Your task to perform on an android device: Go to notification settings Image 0: 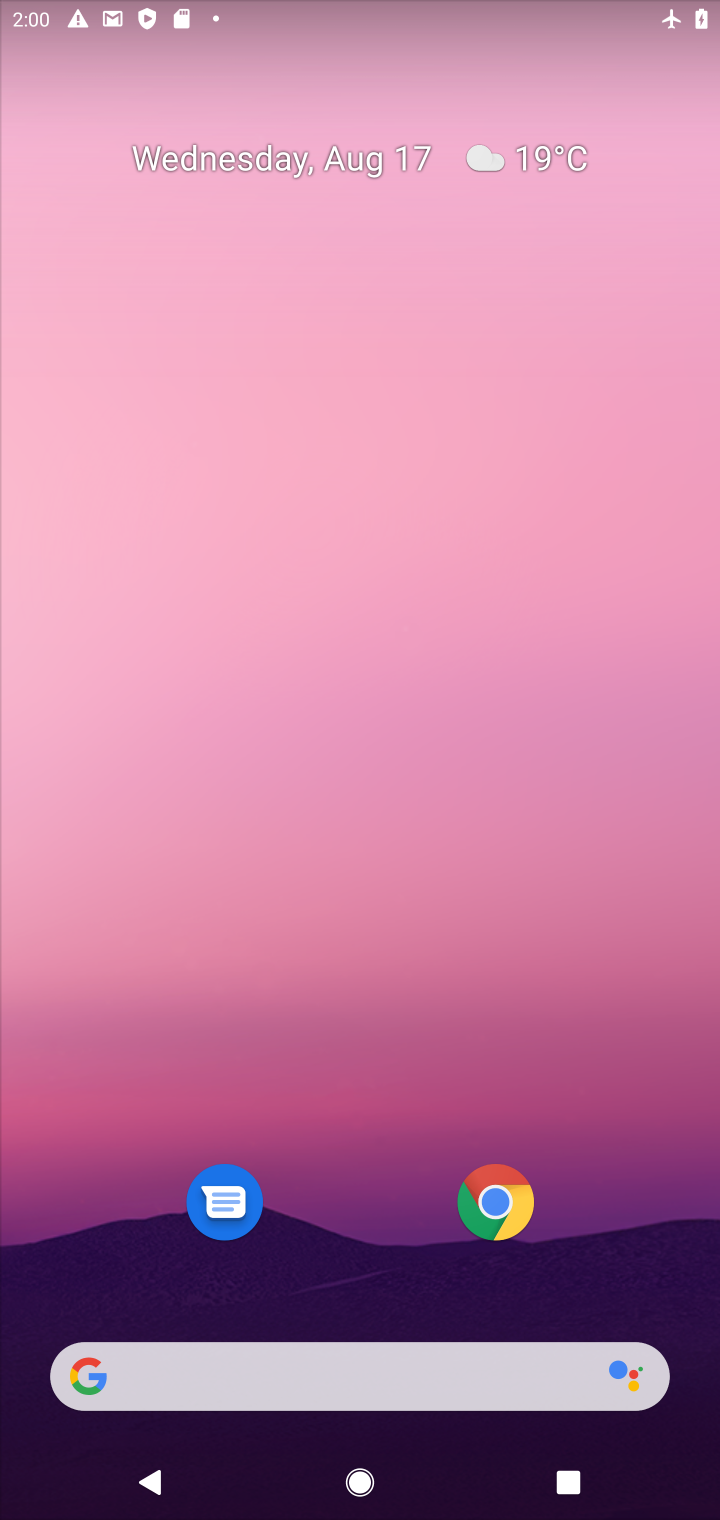
Step 0: drag from (311, 1134) to (353, 8)
Your task to perform on an android device: Go to notification settings Image 1: 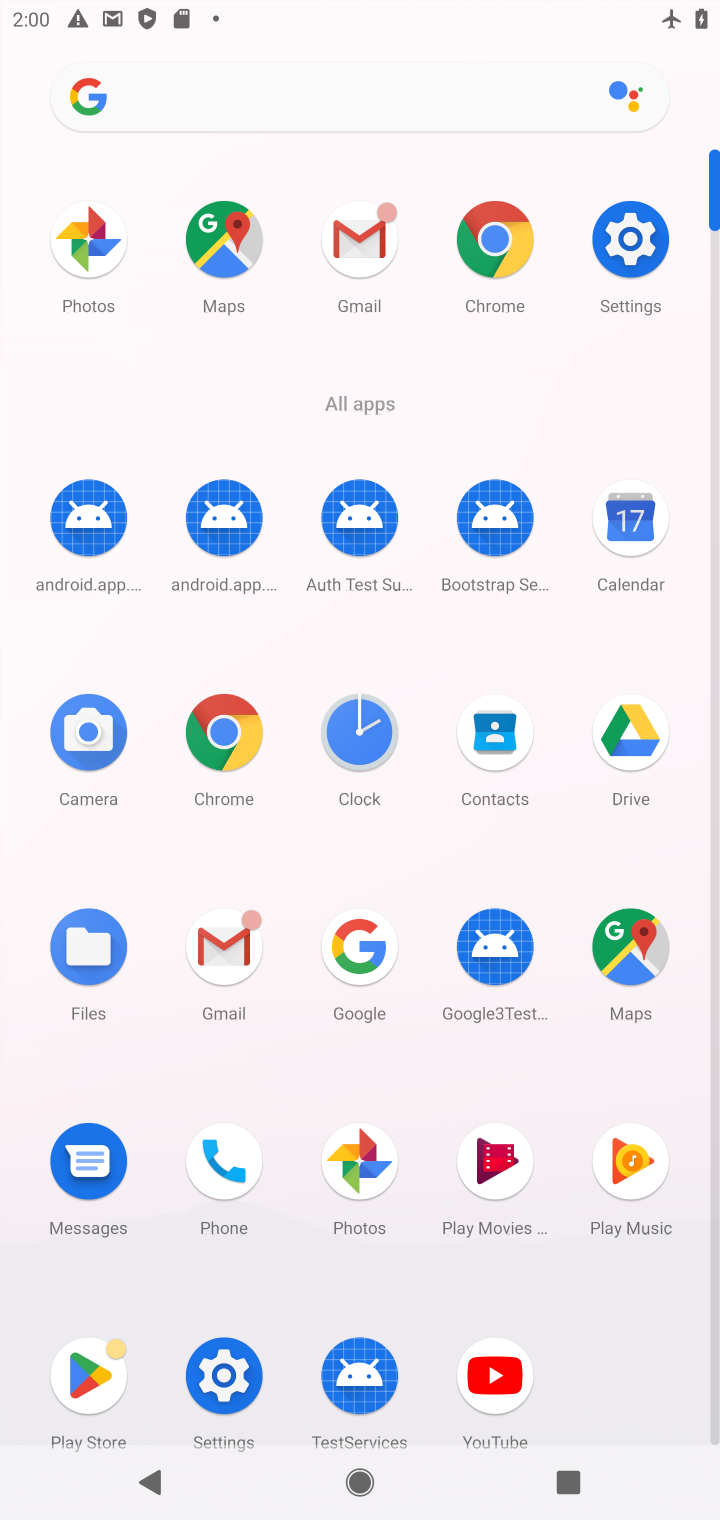
Step 1: click (648, 256)
Your task to perform on an android device: Go to notification settings Image 2: 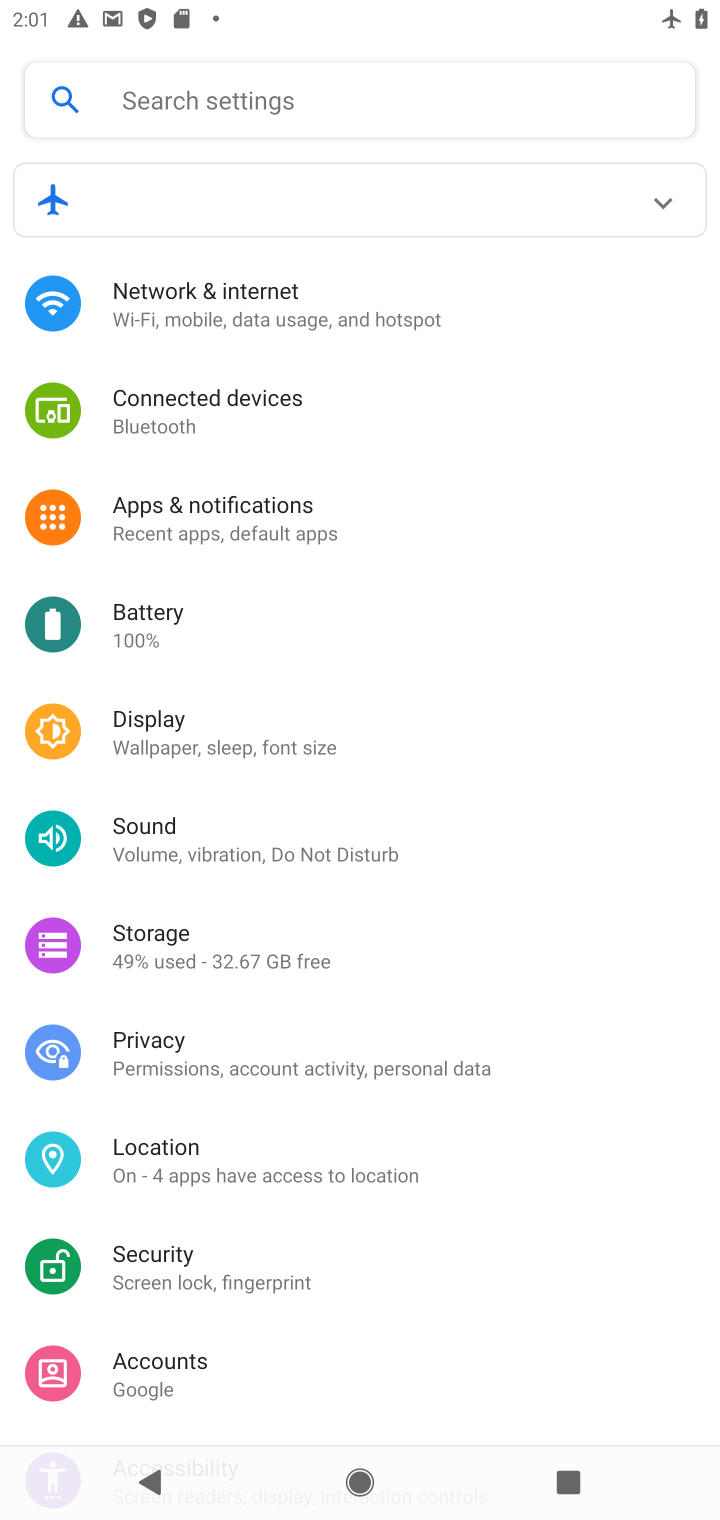
Step 2: click (278, 518)
Your task to perform on an android device: Go to notification settings Image 3: 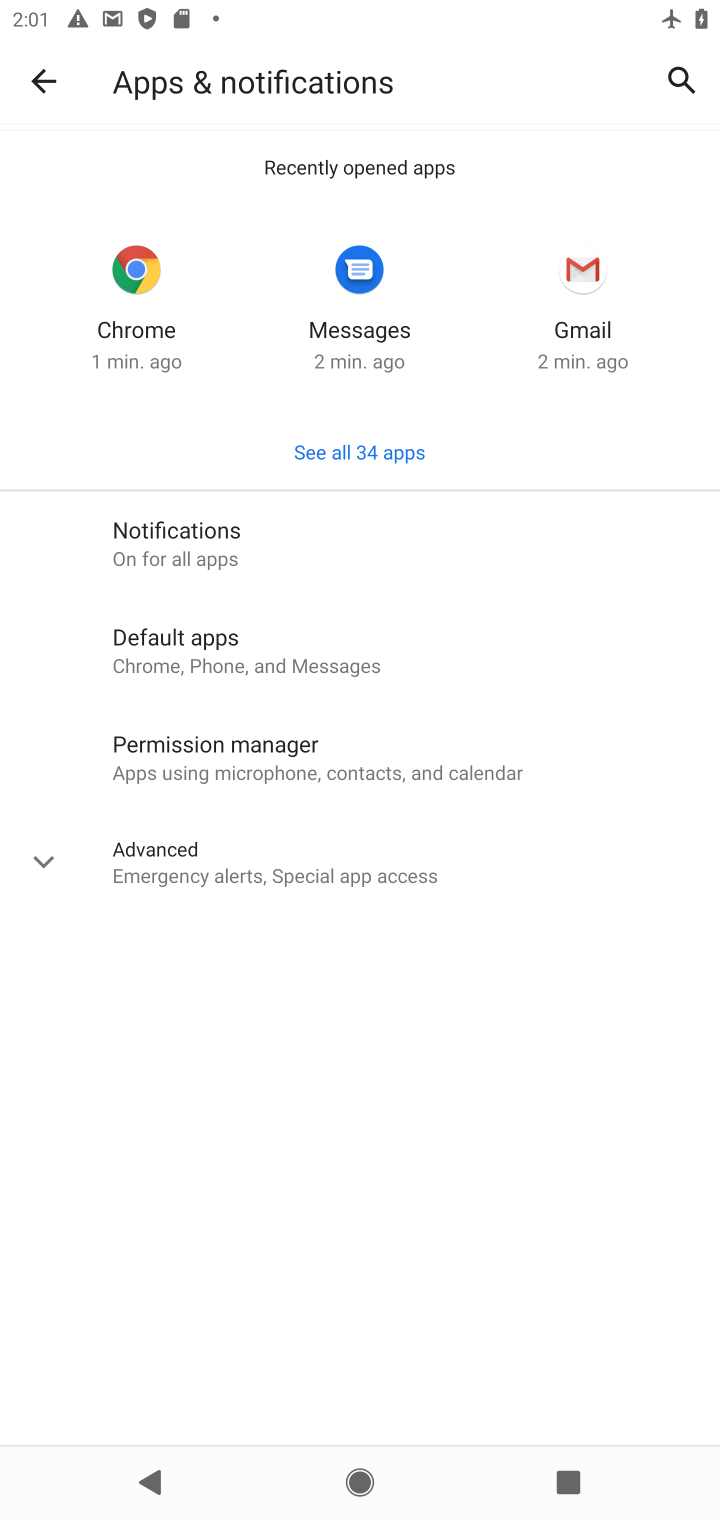
Step 3: click (270, 535)
Your task to perform on an android device: Go to notification settings Image 4: 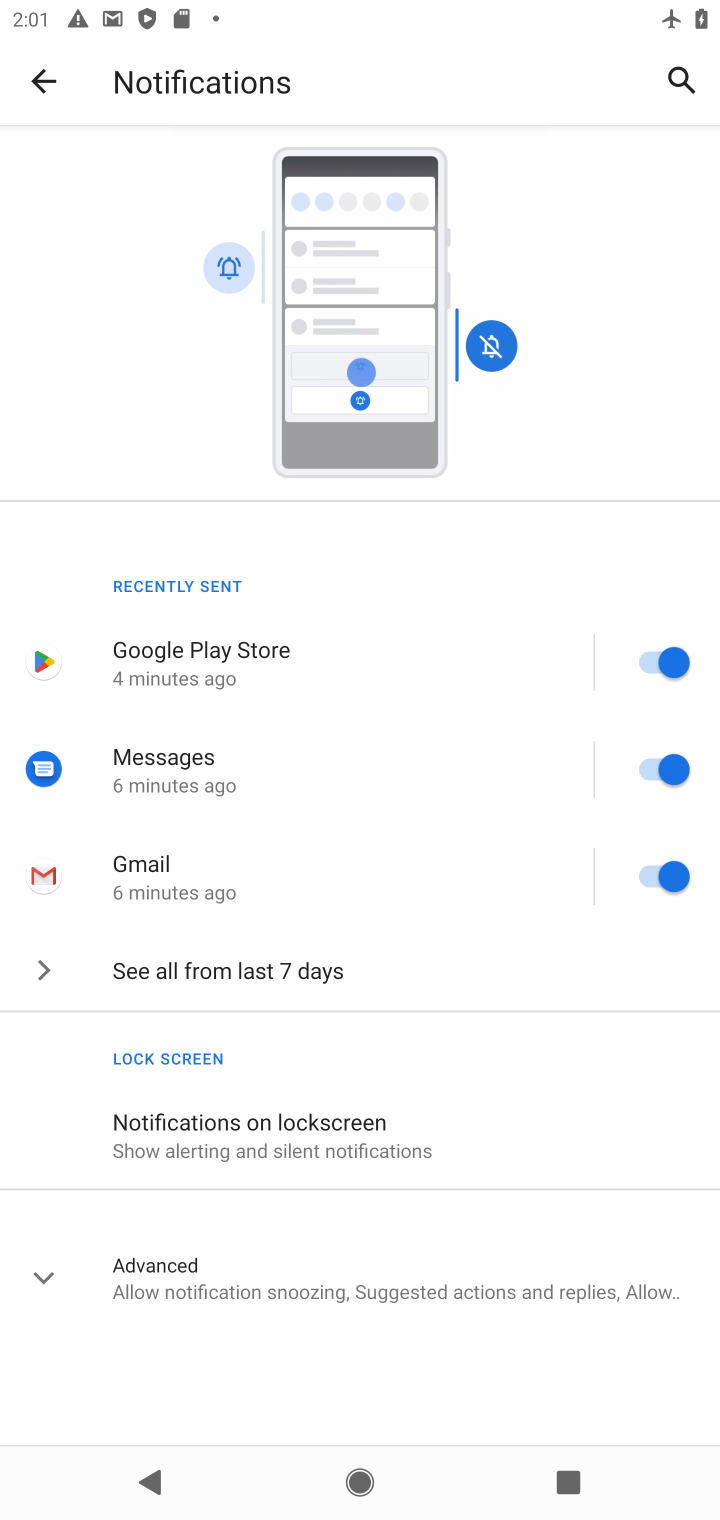
Step 4: task complete